Your task to perform on an android device: change the clock display to show seconds Image 0: 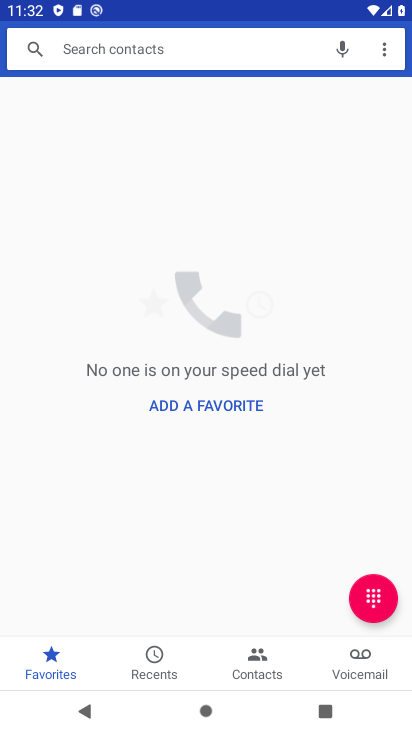
Step 0: press home button
Your task to perform on an android device: change the clock display to show seconds Image 1: 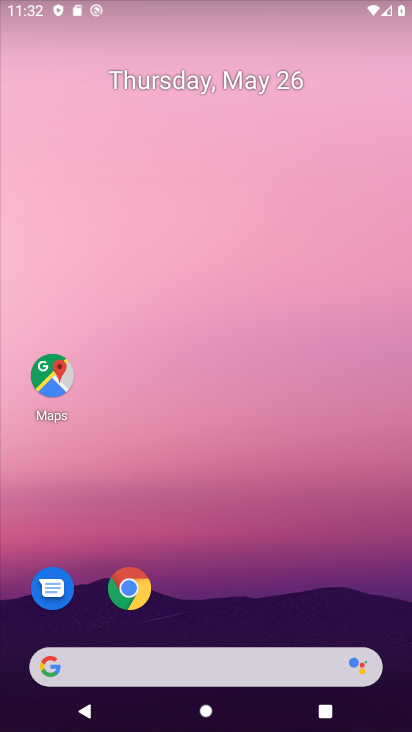
Step 1: drag from (239, 621) to (203, 79)
Your task to perform on an android device: change the clock display to show seconds Image 2: 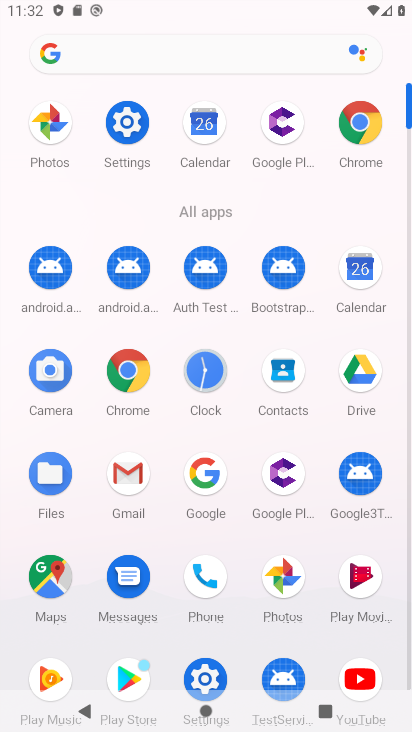
Step 2: click (188, 376)
Your task to perform on an android device: change the clock display to show seconds Image 3: 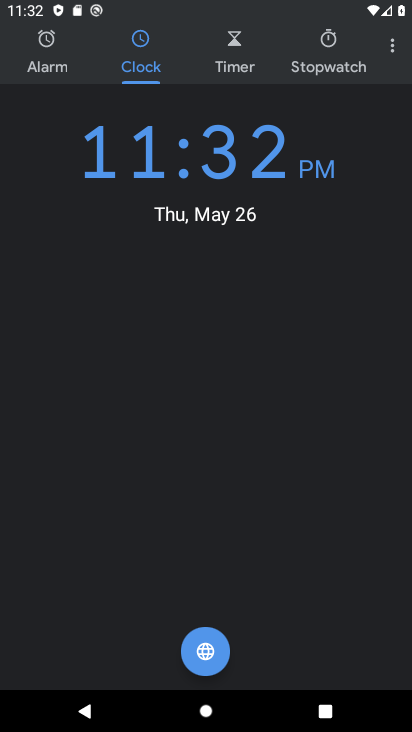
Step 3: click (395, 57)
Your task to perform on an android device: change the clock display to show seconds Image 4: 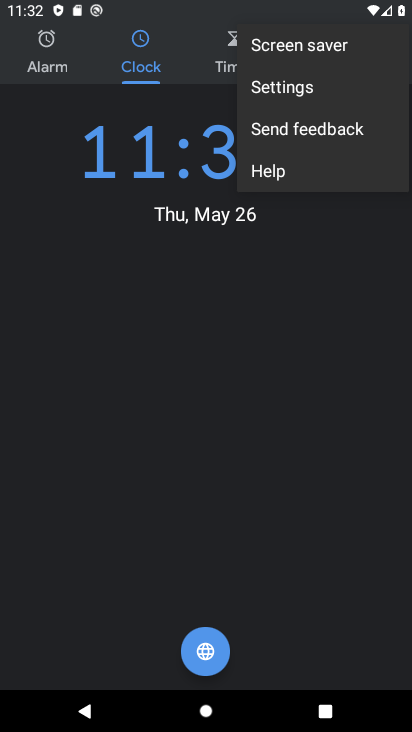
Step 4: click (283, 95)
Your task to perform on an android device: change the clock display to show seconds Image 5: 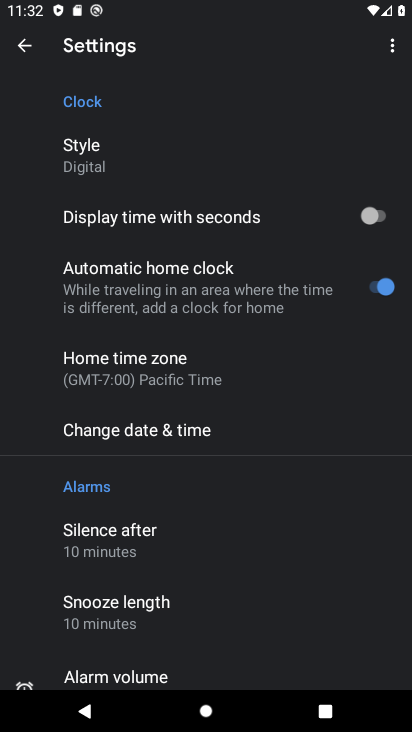
Step 5: click (382, 222)
Your task to perform on an android device: change the clock display to show seconds Image 6: 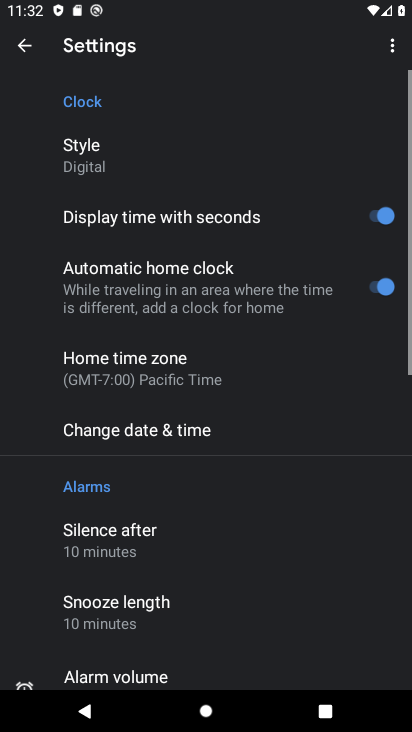
Step 6: task complete